Your task to perform on an android device: Search for vegetarian restaurants on Maps Image 0: 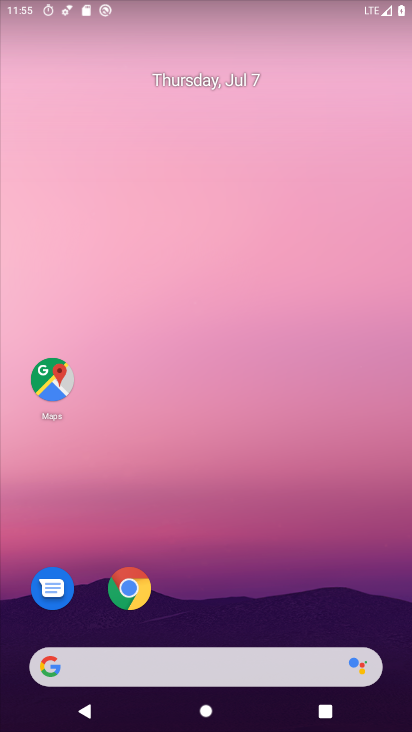
Step 0: click (44, 389)
Your task to perform on an android device: Search for vegetarian restaurants on Maps Image 1: 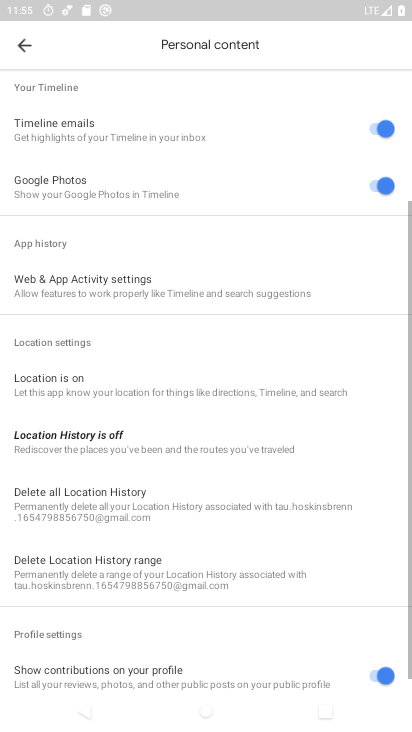
Step 1: click (24, 43)
Your task to perform on an android device: Search for vegetarian restaurants on Maps Image 2: 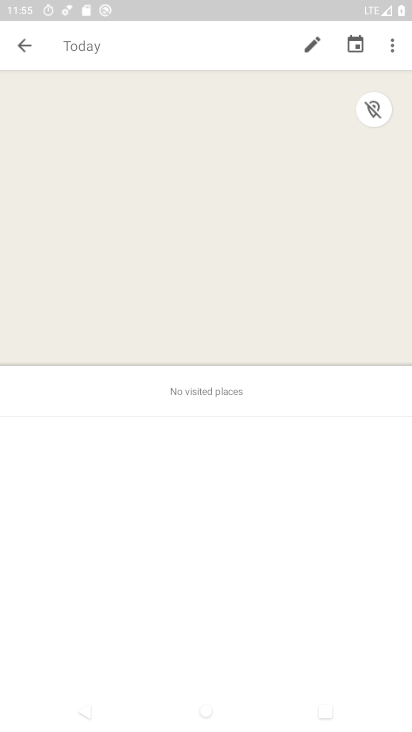
Step 2: click (24, 43)
Your task to perform on an android device: Search for vegetarian restaurants on Maps Image 3: 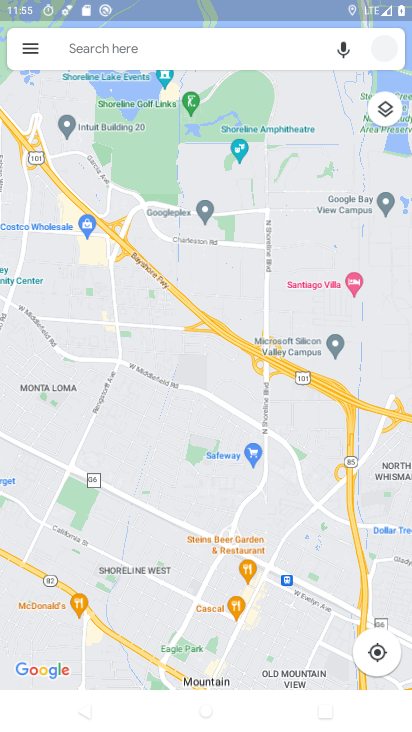
Step 3: click (23, 45)
Your task to perform on an android device: Search for vegetarian restaurants on Maps Image 4: 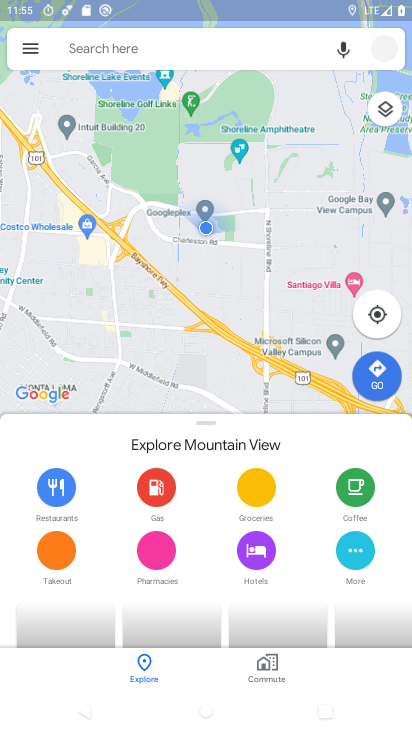
Step 4: click (211, 51)
Your task to perform on an android device: Search for vegetarian restaurants on Maps Image 5: 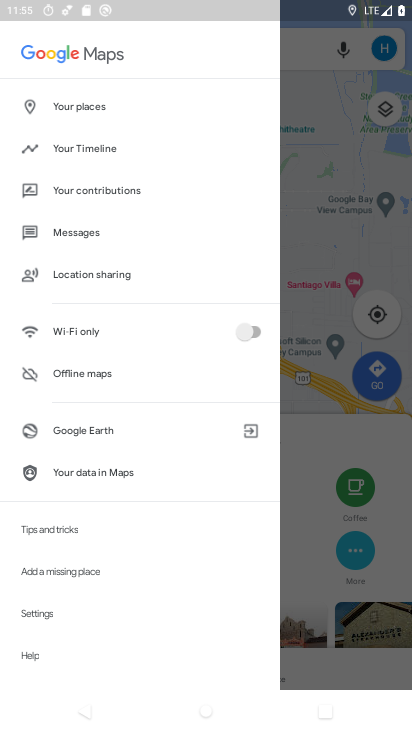
Step 5: click (308, 48)
Your task to perform on an android device: Search for vegetarian restaurants on Maps Image 6: 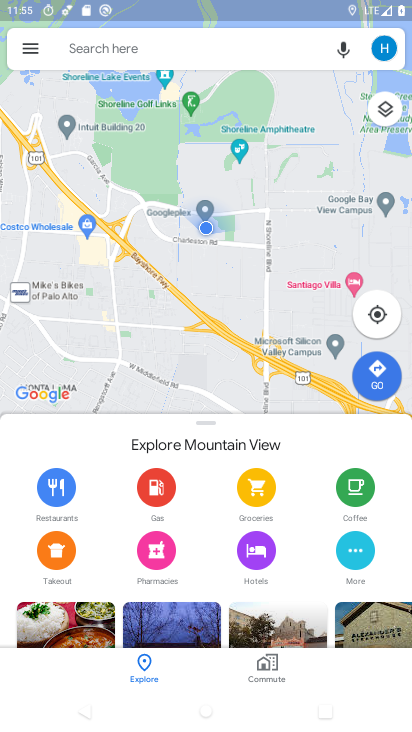
Step 6: click (116, 49)
Your task to perform on an android device: Search for vegetarian restaurants on Maps Image 7: 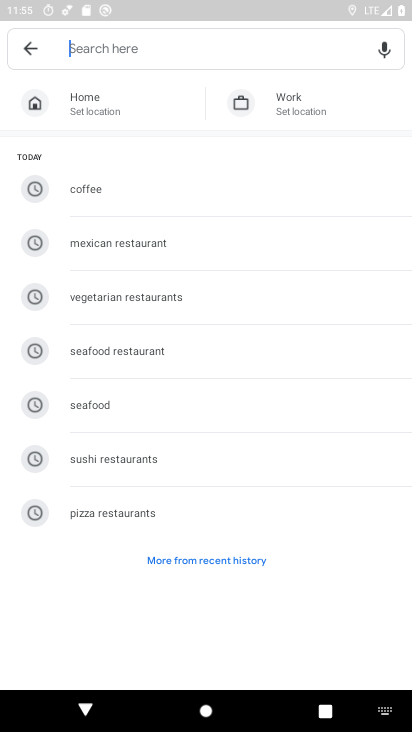
Step 7: click (130, 294)
Your task to perform on an android device: Search for vegetarian restaurants on Maps Image 8: 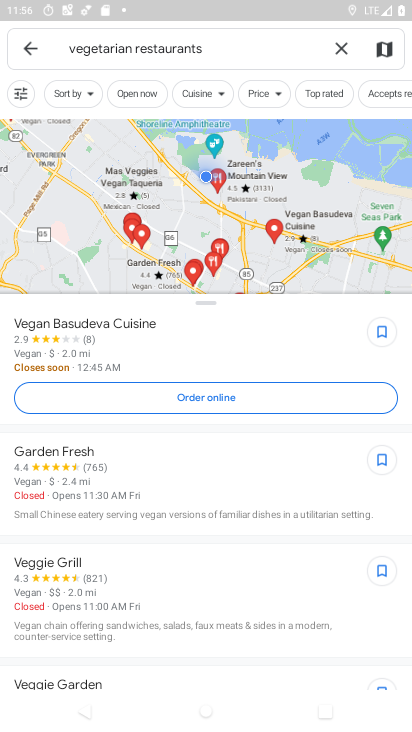
Step 8: task complete